Your task to perform on an android device: Search for seafood restaurants on Google Maps Image 0: 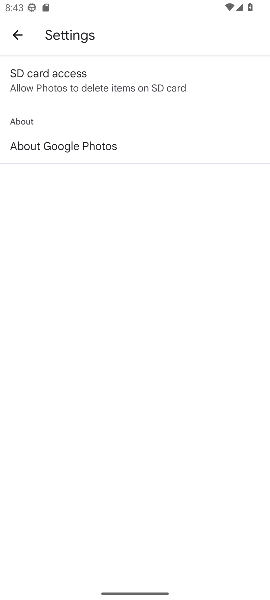
Step 0: press home button
Your task to perform on an android device: Search for seafood restaurants on Google Maps Image 1: 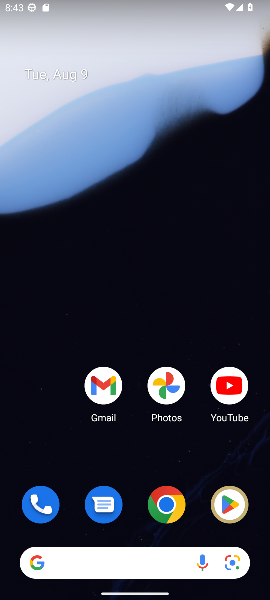
Step 1: drag from (64, 442) to (13, 38)
Your task to perform on an android device: Search for seafood restaurants on Google Maps Image 2: 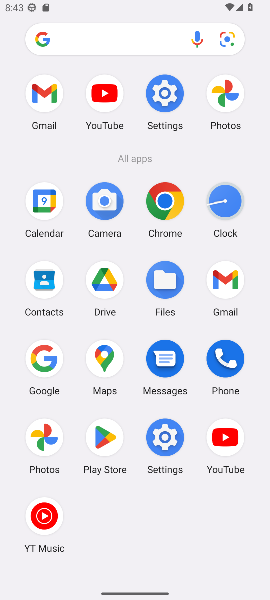
Step 2: click (103, 354)
Your task to perform on an android device: Search for seafood restaurants on Google Maps Image 3: 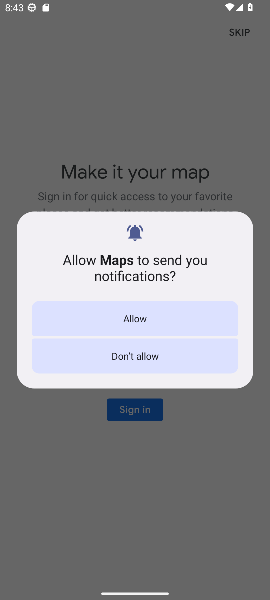
Step 3: click (129, 313)
Your task to perform on an android device: Search for seafood restaurants on Google Maps Image 4: 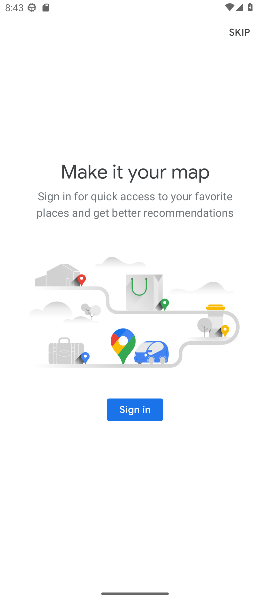
Step 4: click (241, 27)
Your task to perform on an android device: Search for seafood restaurants on Google Maps Image 5: 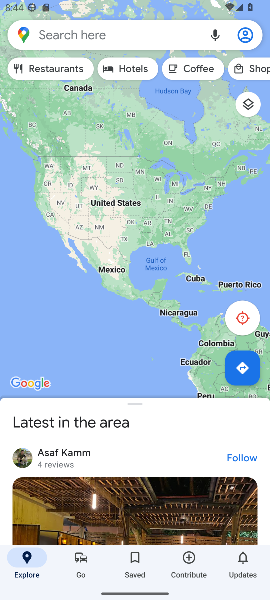
Step 5: click (99, 26)
Your task to perform on an android device: Search for seafood restaurants on Google Maps Image 6: 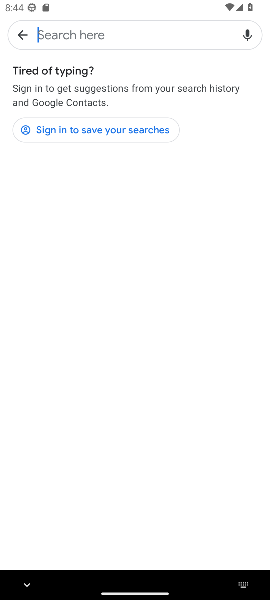
Step 6: type "seafood restaurant"
Your task to perform on an android device: Search for seafood restaurants on Google Maps Image 7: 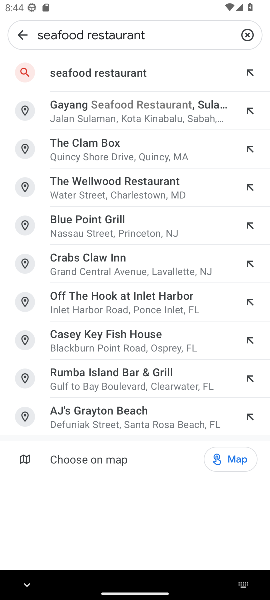
Step 7: click (125, 71)
Your task to perform on an android device: Search for seafood restaurants on Google Maps Image 8: 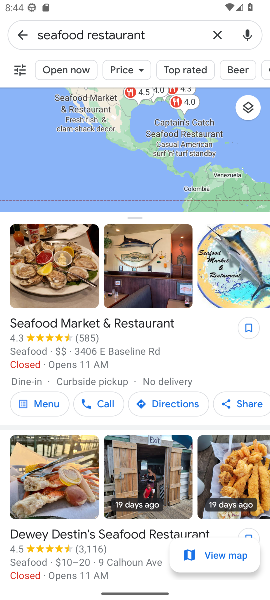
Step 8: task complete